Your task to perform on an android device: Search for "macbook pro" on bestbuy.com, select the first entry, and add it to the cart. Image 0: 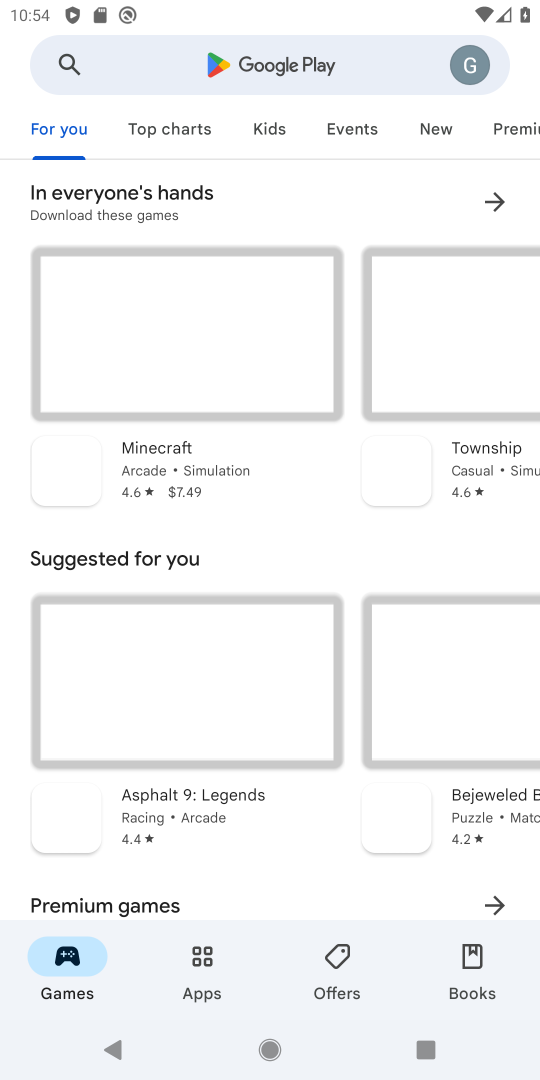
Step 0: press home button
Your task to perform on an android device: Search for "macbook pro" on bestbuy.com, select the first entry, and add it to the cart. Image 1: 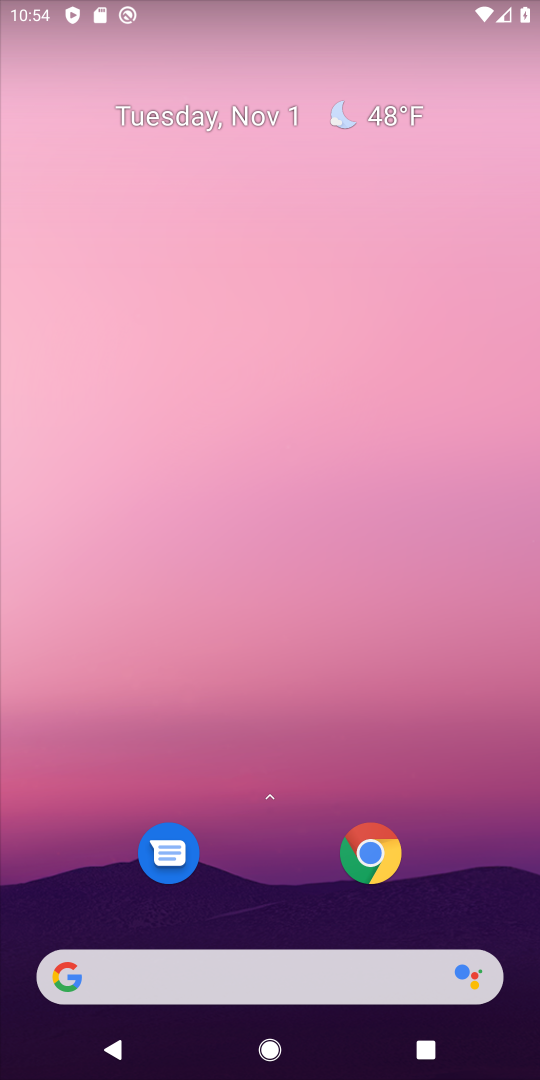
Step 1: drag from (334, 1026) to (366, 184)
Your task to perform on an android device: Search for "macbook pro" on bestbuy.com, select the first entry, and add it to the cart. Image 2: 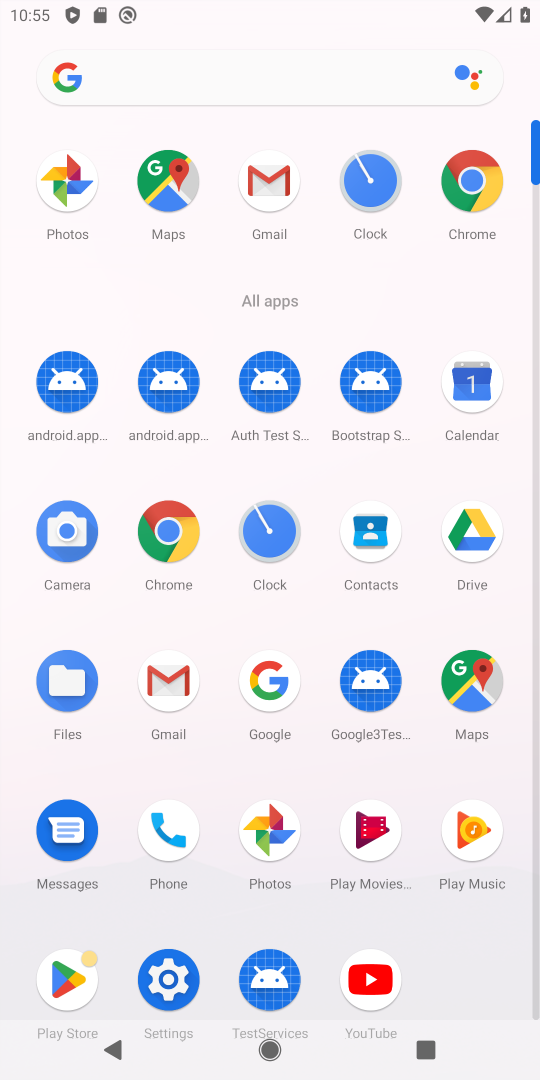
Step 2: click (158, 523)
Your task to perform on an android device: Search for "macbook pro" on bestbuy.com, select the first entry, and add it to the cart. Image 3: 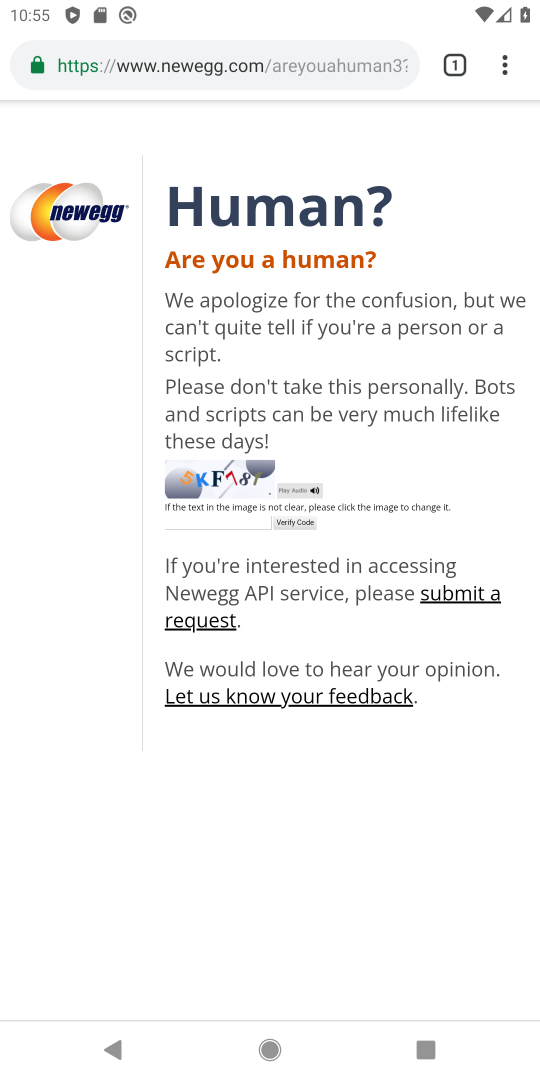
Step 3: click (223, 65)
Your task to perform on an android device: Search for "macbook pro" on bestbuy.com, select the first entry, and add it to the cart. Image 4: 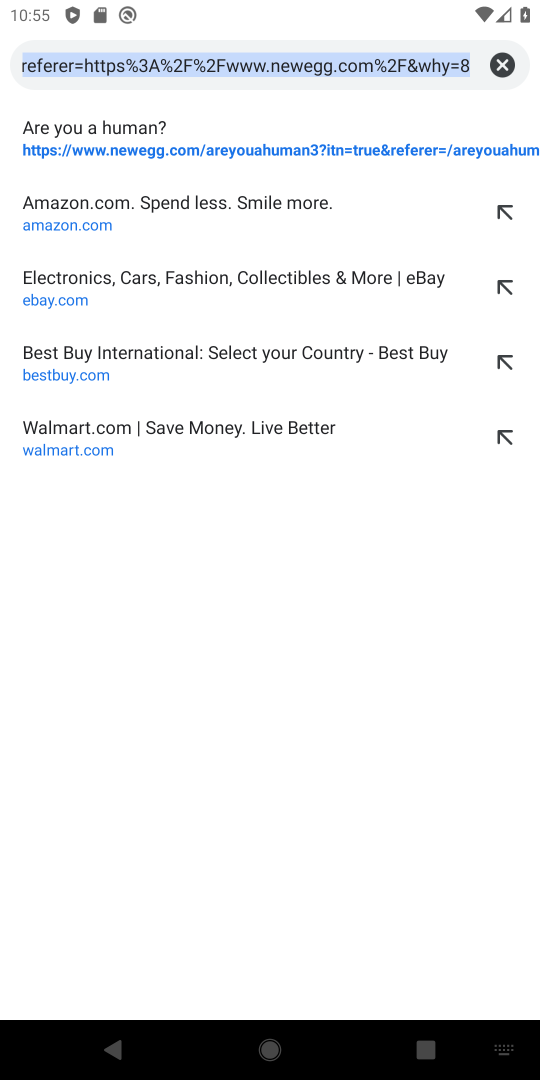
Step 4: click (502, 66)
Your task to perform on an android device: Search for "macbook pro" on bestbuy.com, select the first entry, and add it to the cart. Image 5: 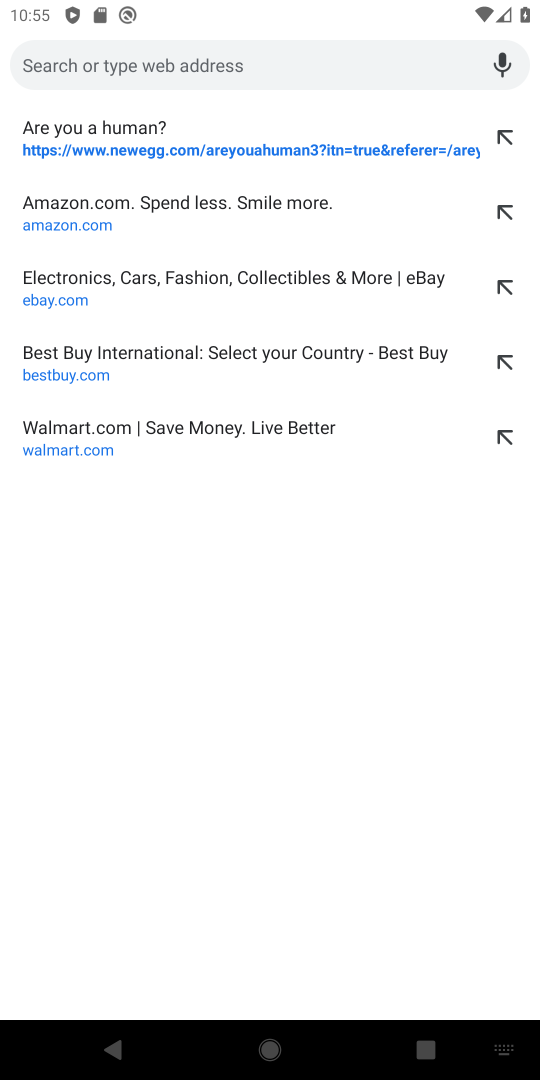
Step 5: type "bestbuy.com"
Your task to perform on an android device: Search for "macbook pro" on bestbuy.com, select the first entry, and add it to the cart. Image 6: 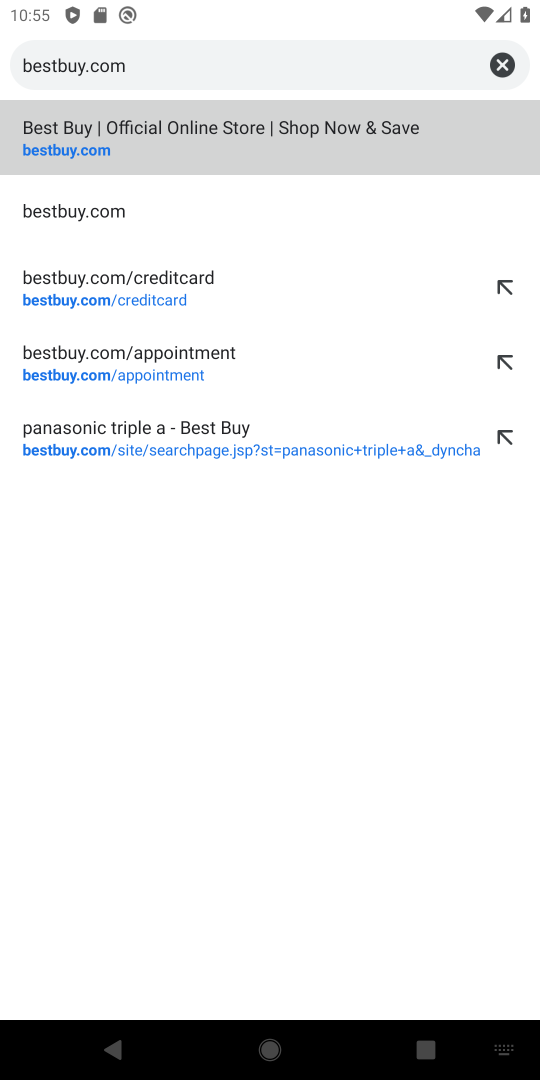
Step 6: click (42, 145)
Your task to perform on an android device: Search for "macbook pro" on bestbuy.com, select the first entry, and add it to the cart. Image 7: 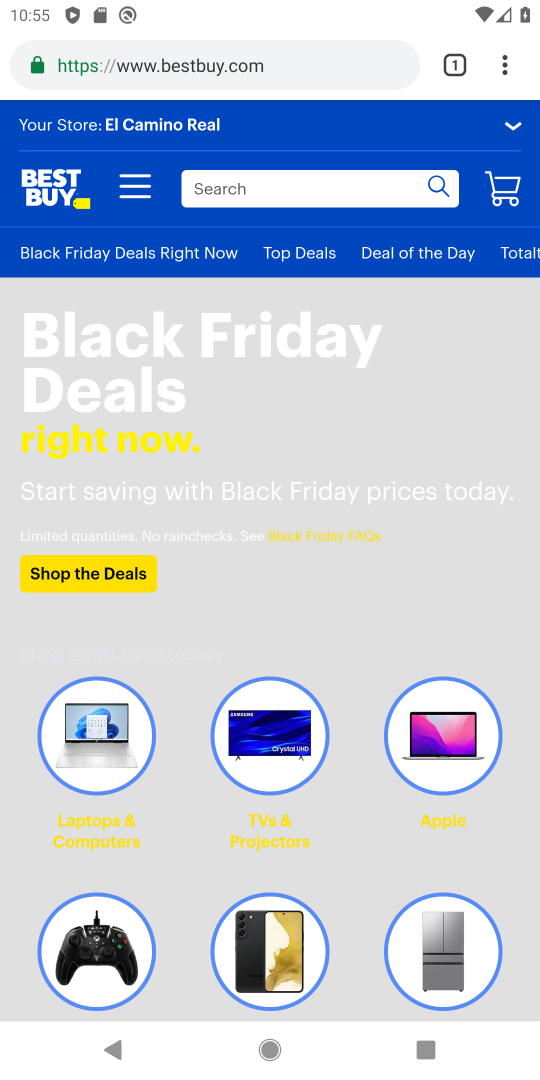
Step 7: click (228, 185)
Your task to perform on an android device: Search for "macbook pro" on bestbuy.com, select the first entry, and add it to the cart. Image 8: 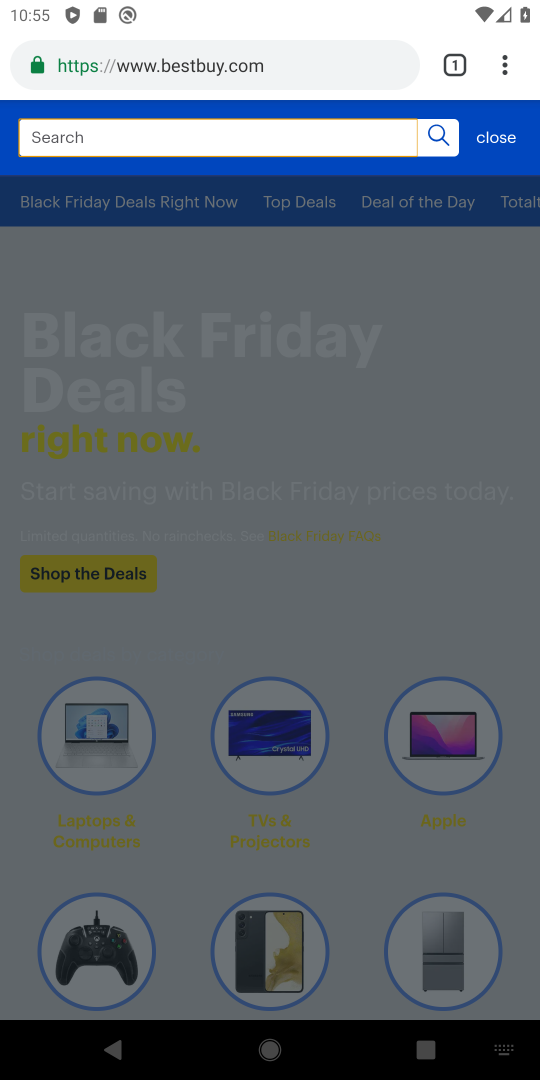
Step 8: type "macbook pro"
Your task to perform on an android device: Search for "macbook pro" on bestbuy.com, select the first entry, and add it to the cart. Image 9: 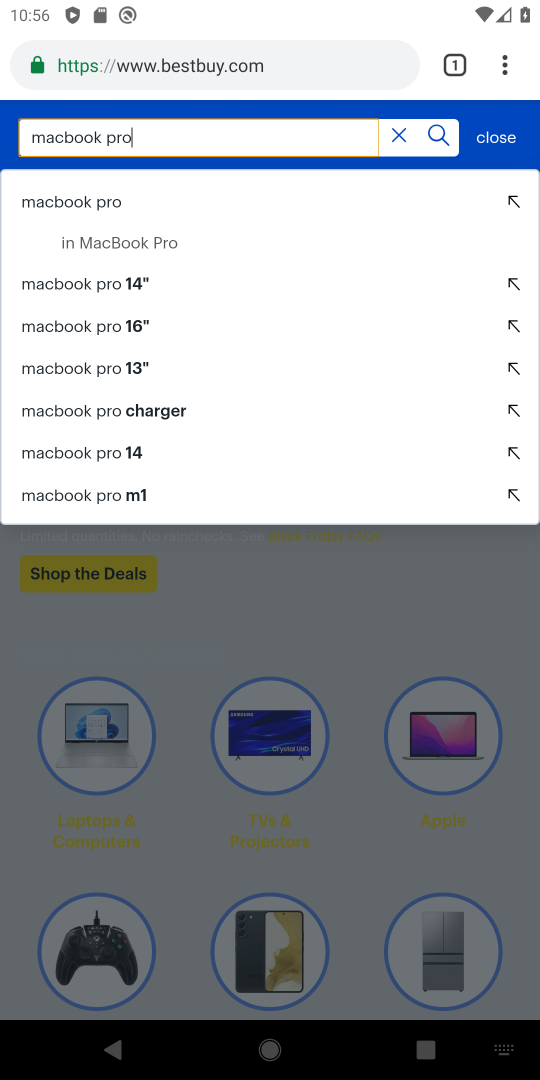
Step 9: click (439, 136)
Your task to perform on an android device: Search for "macbook pro" on bestbuy.com, select the first entry, and add it to the cart. Image 10: 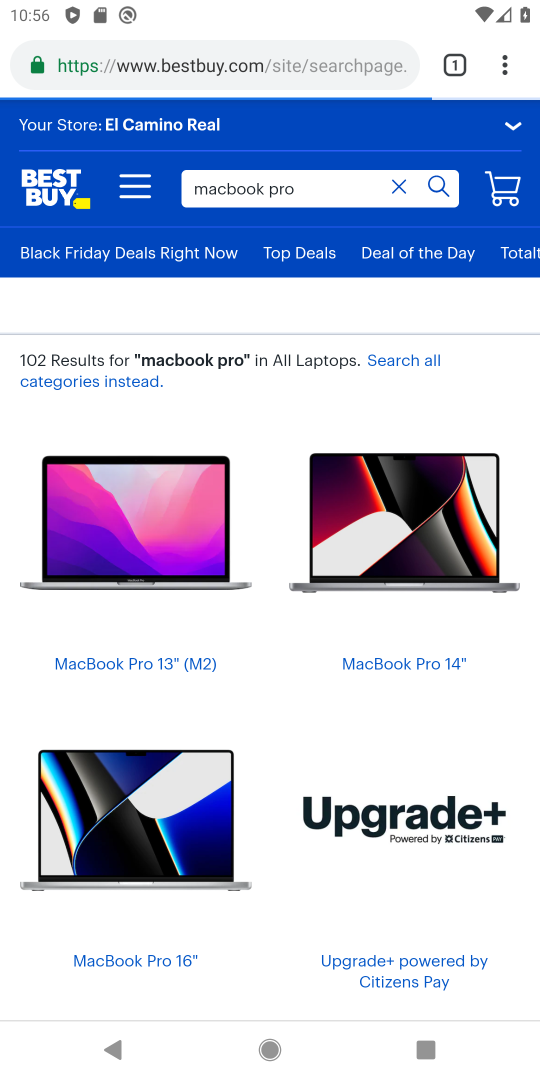
Step 10: click (133, 526)
Your task to perform on an android device: Search for "macbook pro" on bestbuy.com, select the first entry, and add it to the cart. Image 11: 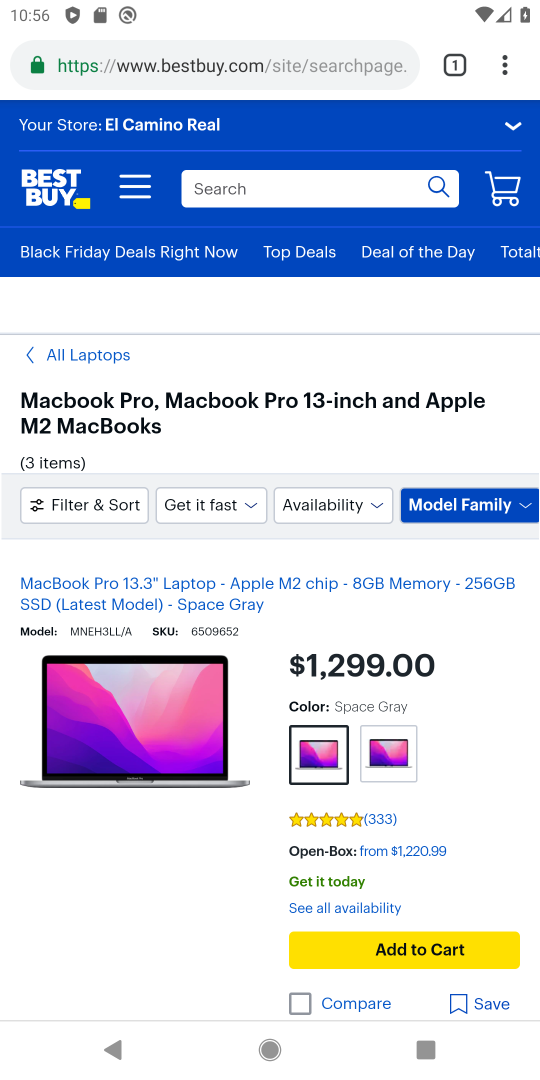
Step 11: drag from (252, 930) to (309, 473)
Your task to perform on an android device: Search for "macbook pro" on bestbuy.com, select the first entry, and add it to the cart. Image 12: 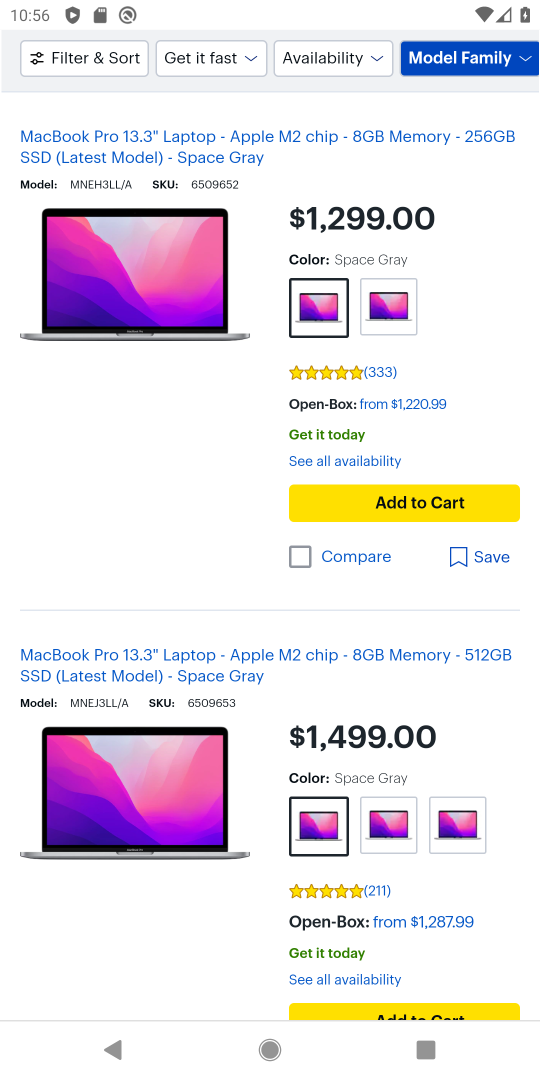
Step 12: click (379, 494)
Your task to perform on an android device: Search for "macbook pro" on bestbuy.com, select the first entry, and add it to the cart. Image 13: 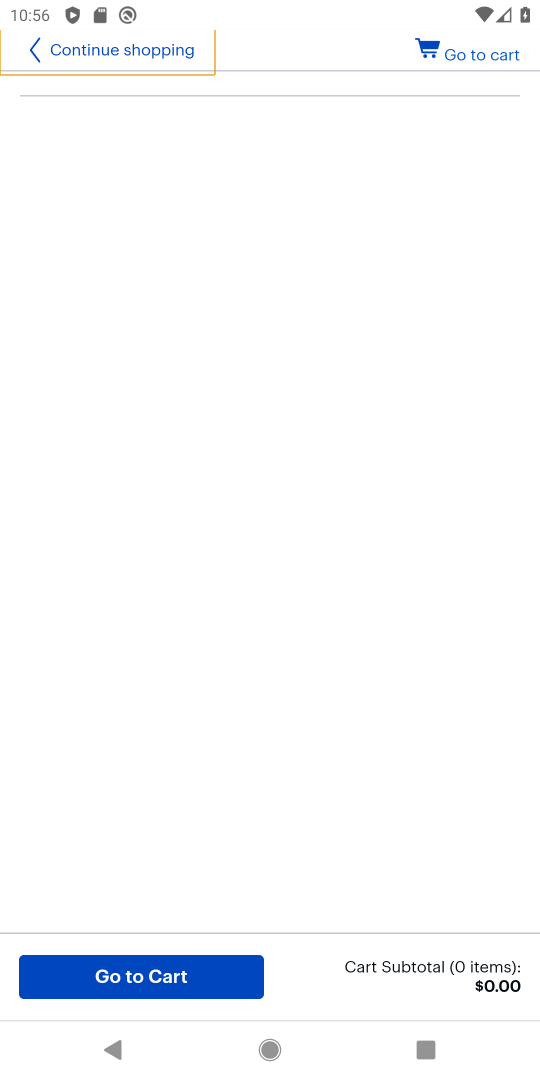
Step 13: task complete